Your task to perform on an android device: change the clock display to analog Image 0: 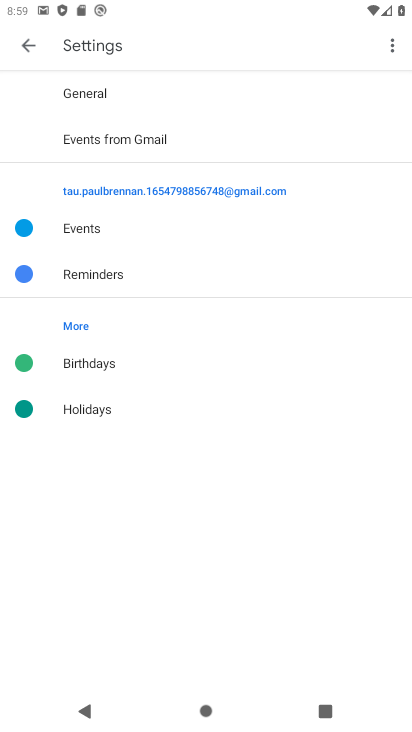
Step 0: press home button
Your task to perform on an android device: change the clock display to analog Image 1: 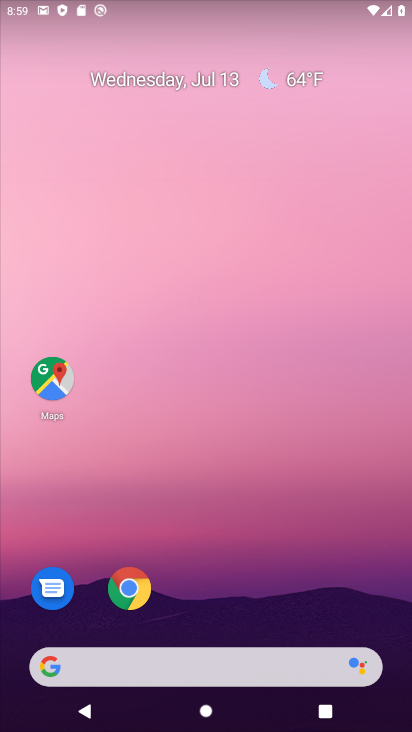
Step 1: drag from (218, 636) to (195, 6)
Your task to perform on an android device: change the clock display to analog Image 2: 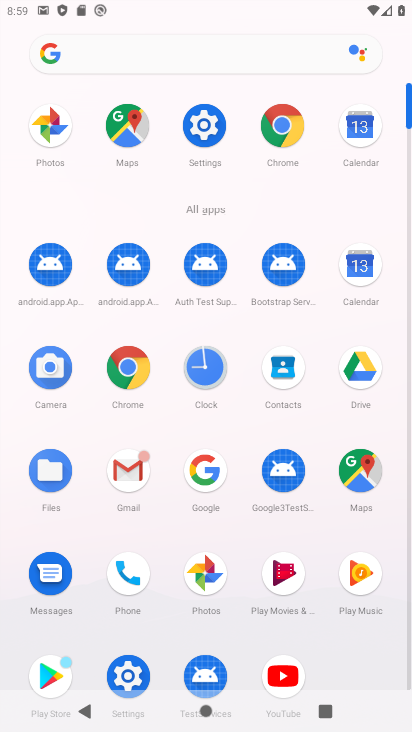
Step 2: click (210, 372)
Your task to perform on an android device: change the clock display to analog Image 3: 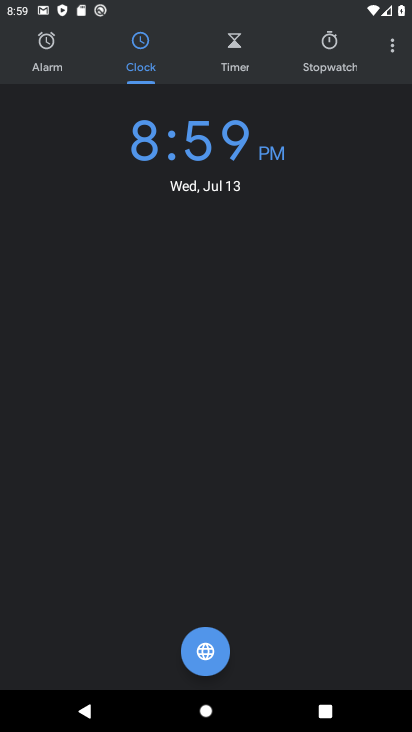
Step 3: click (392, 48)
Your task to perform on an android device: change the clock display to analog Image 4: 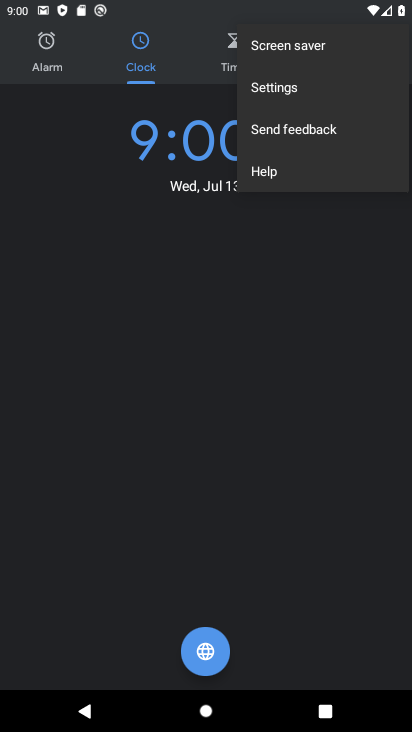
Step 4: click (255, 101)
Your task to perform on an android device: change the clock display to analog Image 5: 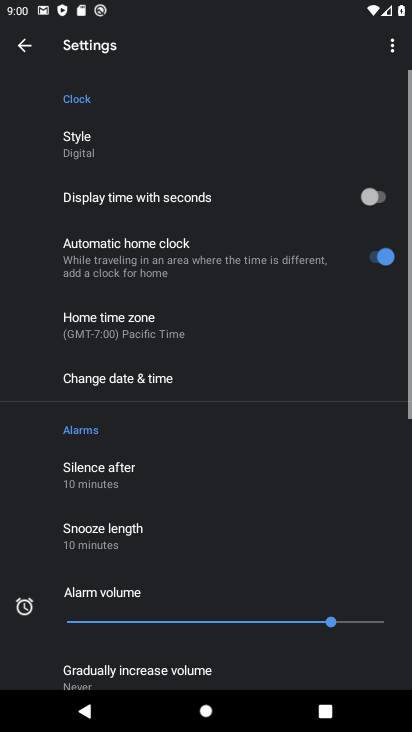
Step 5: click (94, 145)
Your task to perform on an android device: change the clock display to analog Image 6: 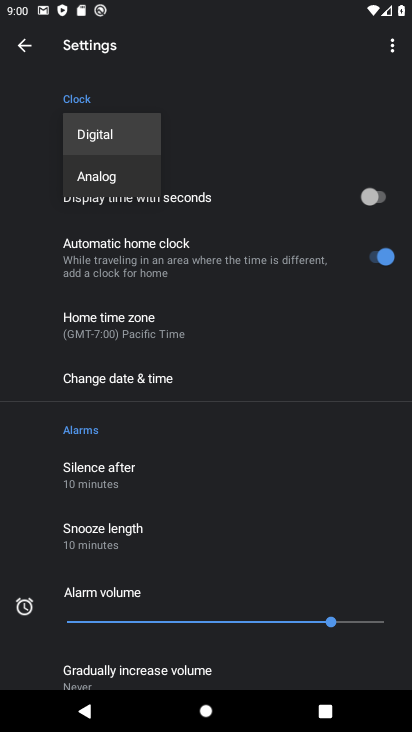
Step 6: click (102, 167)
Your task to perform on an android device: change the clock display to analog Image 7: 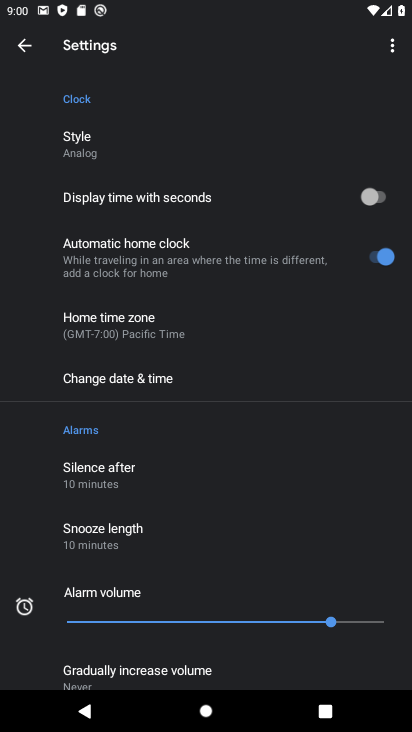
Step 7: task complete